Your task to perform on an android device: Go to notification settings Image 0: 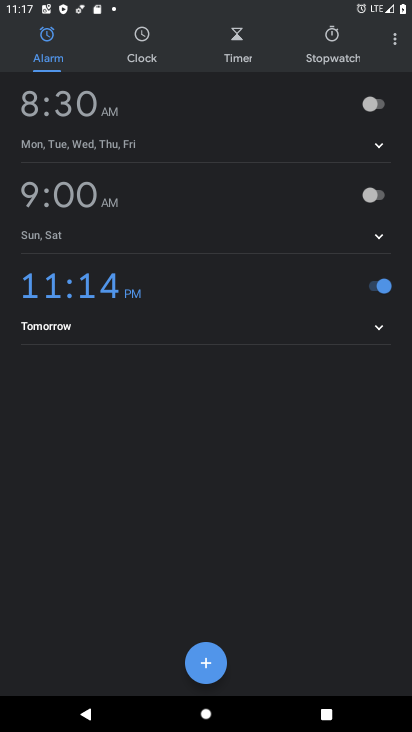
Step 0: press home button
Your task to perform on an android device: Go to notification settings Image 1: 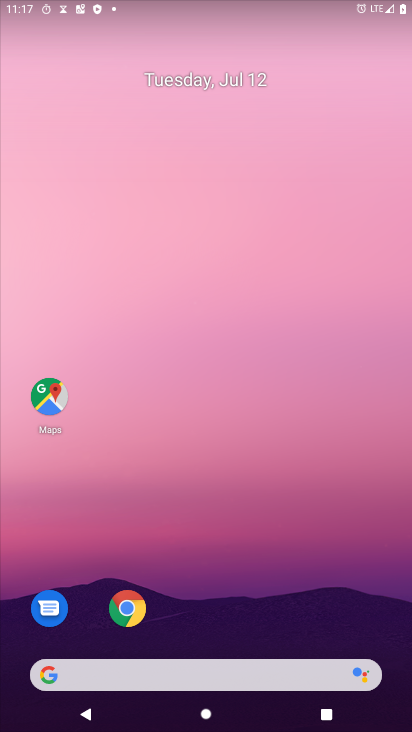
Step 1: drag from (232, 630) to (271, 0)
Your task to perform on an android device: Go to notification settings Image 2: 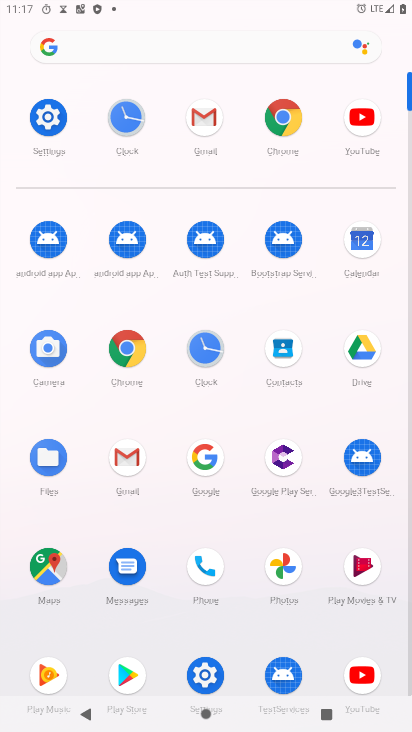
Step 2: click (40, 117)
Your task to perform on an android device: Go to notification settings Image 3: 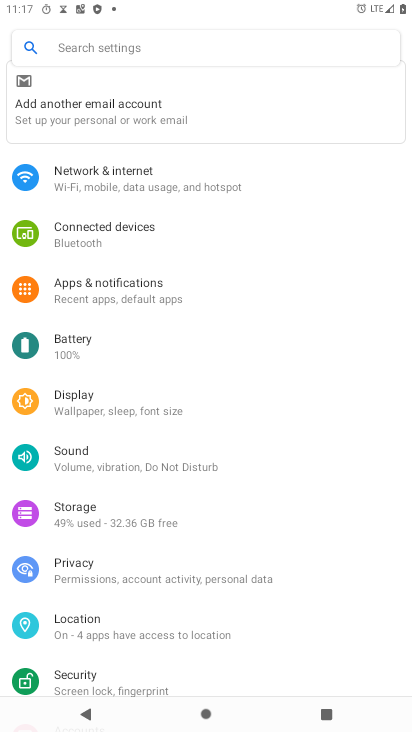
Step 3: click (132, 291)
Your task to perform on an android device: Go to notification settings Image 4: 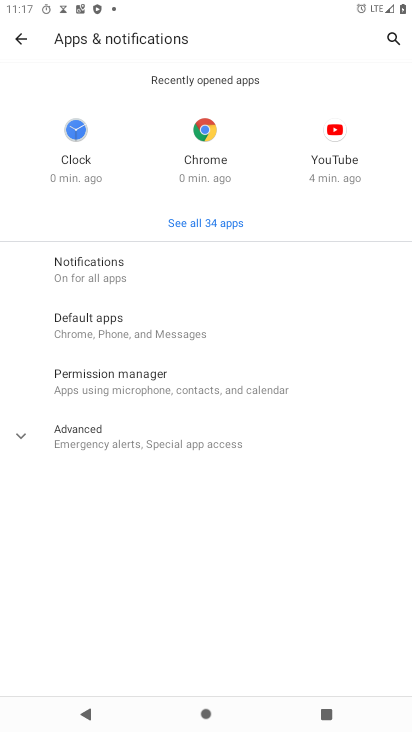
Step 4: click (166, 265)
Your task to perform on an android device: Go to notification settings Image 5: 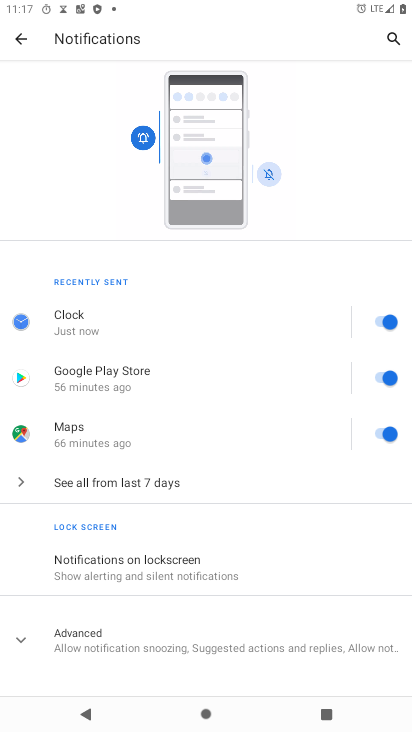
Step 5: task complete